Your task to perform on an android device: turn off location Image 0: 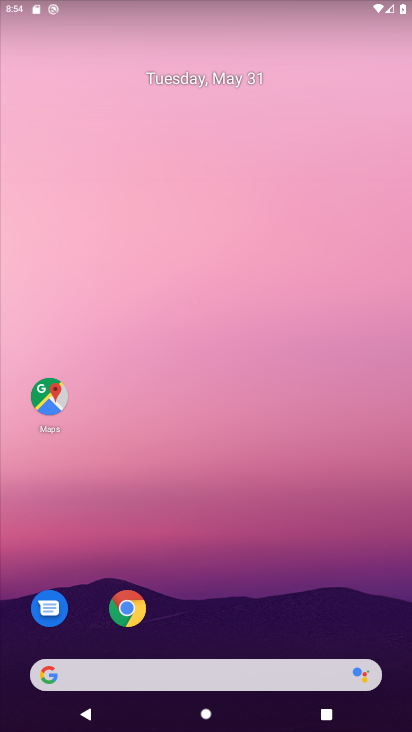
Step 0: drag from (249, 614) to (181, 106)
Your task to perform on an android device: turn off location Image 1: 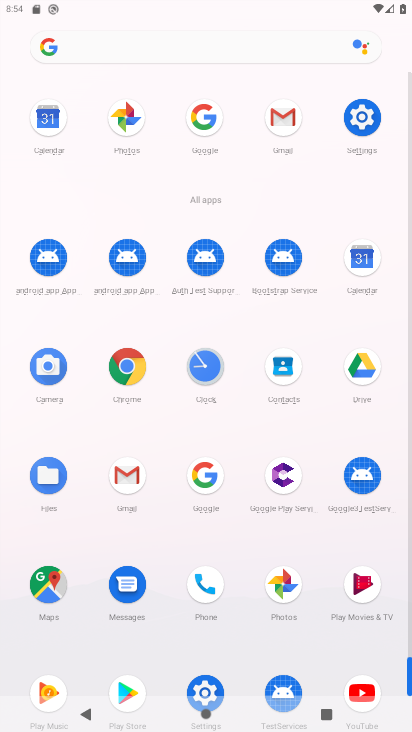
Step 1: click (361, 115)
Your task to perform on an android device: turn off location Image 2: 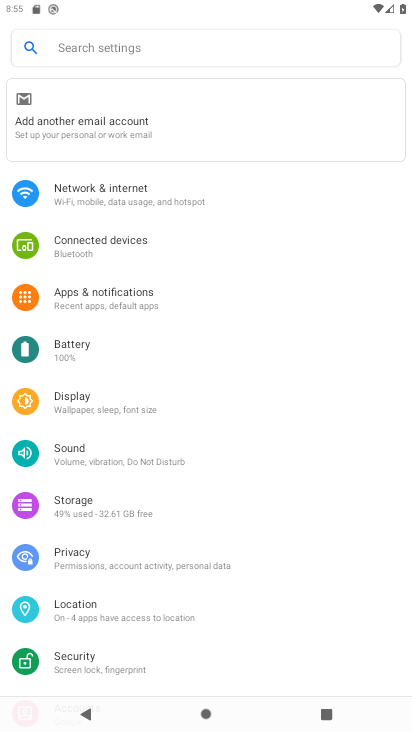
Step 2: click (90, 606)
Your task to perform on an android device: turn off location Image 3: 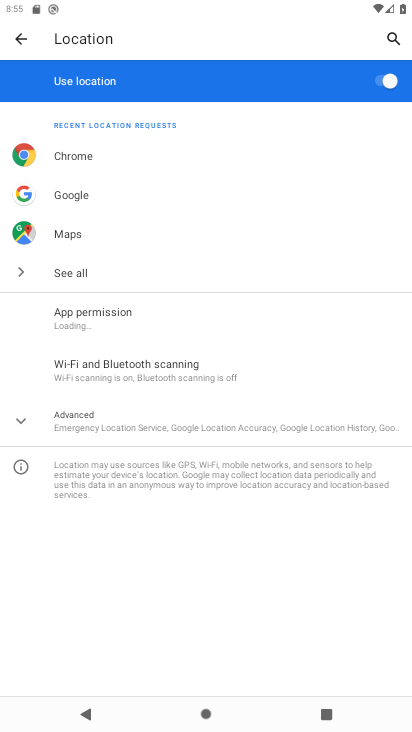
Step 3: click (379, 79)
Your task to perform on an android device: turn off location Image 4: 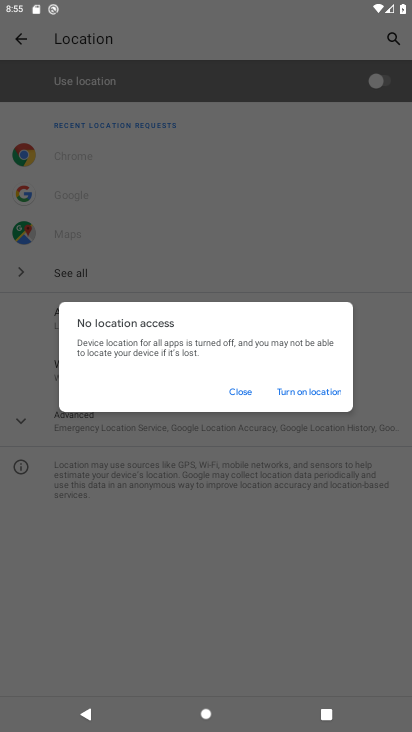
Step 4: click (249, 394)
Your task to perform on an android device: turn off location Image 5: 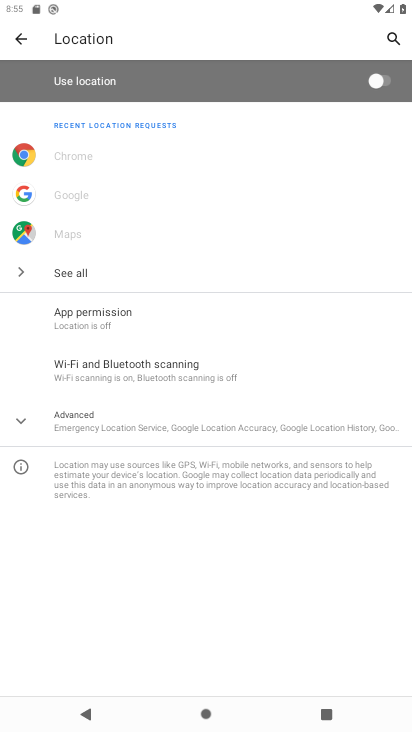
Step 5: task complete